Your task to perform on an android device: add a contact in the contacts app Image 0: 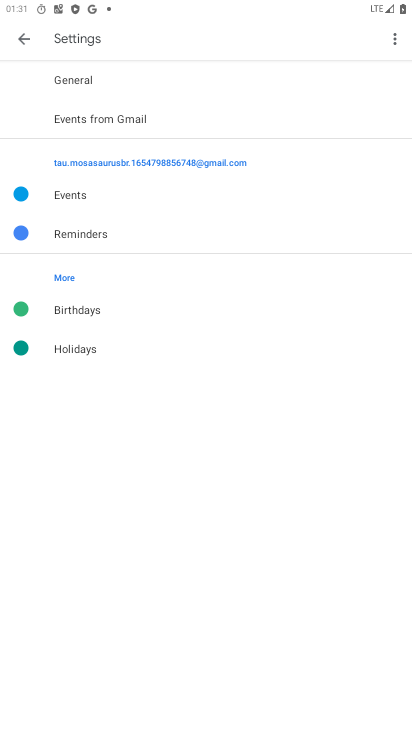
Step 0: press home button
Your task to perform on an android device: add a contact in the contacts app Image 1: 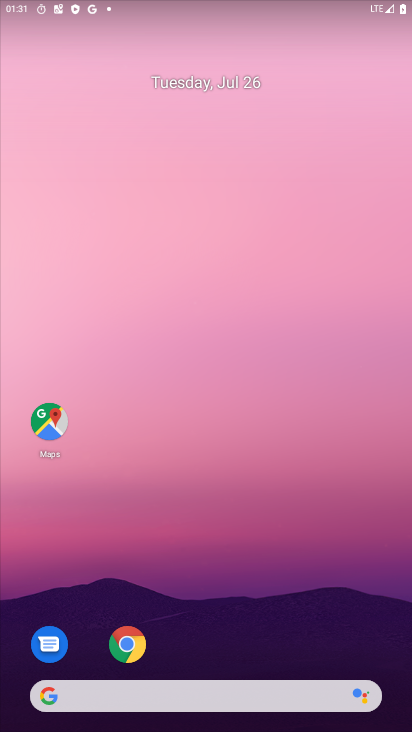
Step 1: drag from (239, 652) to (238, 73)
Your task to perform on an android device: add a contact in the contacts app Image 2: 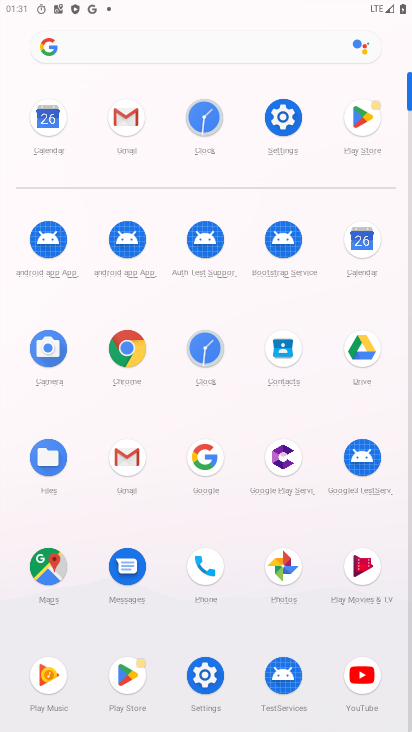
Step 2: click (289, 348)
Your task to perform on an android device: add a contact in the contacts app Image 3: 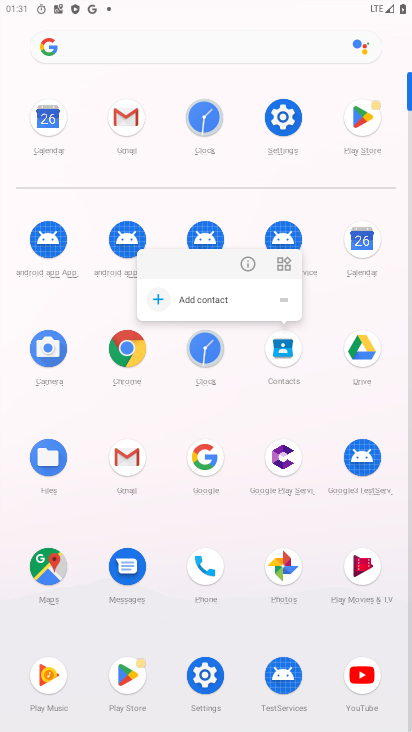
Step 3: click (288, 351)
Your task to perform on an android device: add a contact in the contacts app Image 4: 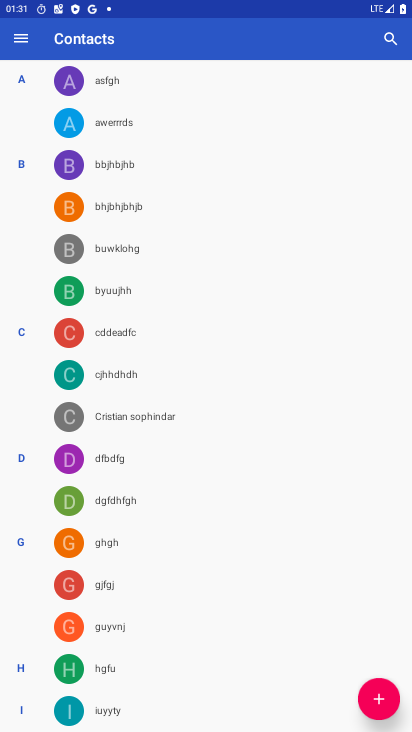
Step 4: click (382, 706)
Your task to perform on an android device: add a contact in the contacts app Image 5: 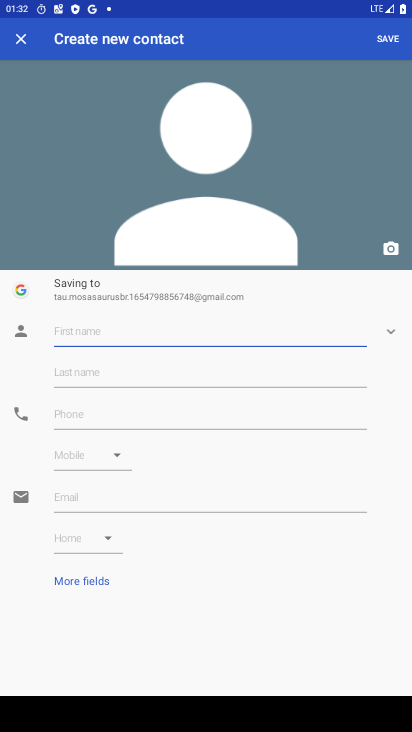
Step 5: click (90, 330)
Your task to perform on an android device: add a contact in the contacts app Image 6: 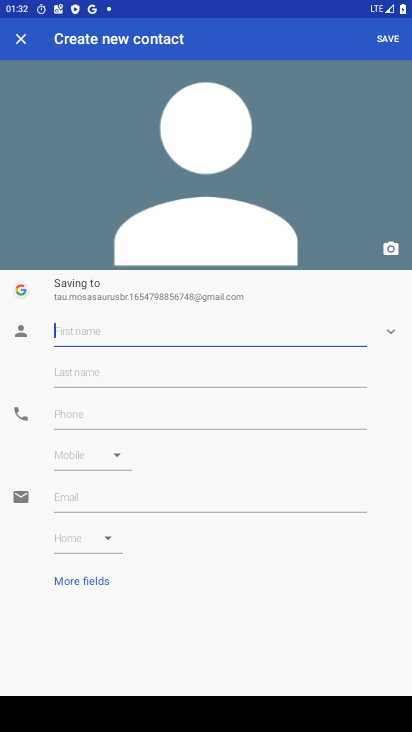
Step 6: type "ytfghut"
Your task to perform on an android device: add a contact in the contacts app Image 7: 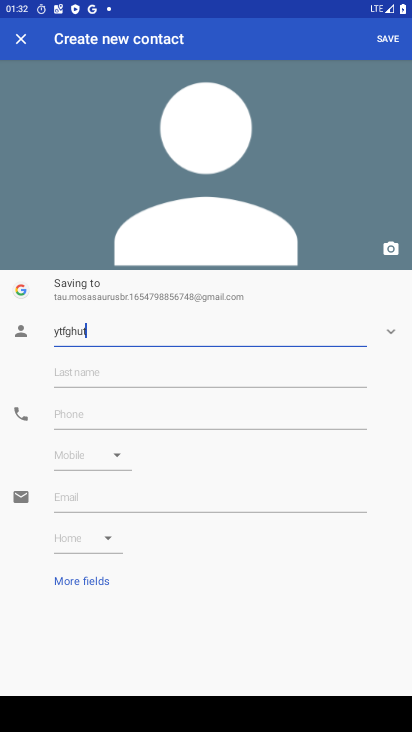
Step 7: click (88, 419)
Your task to perform on an android device: add a contact in the contacts app Image 8: 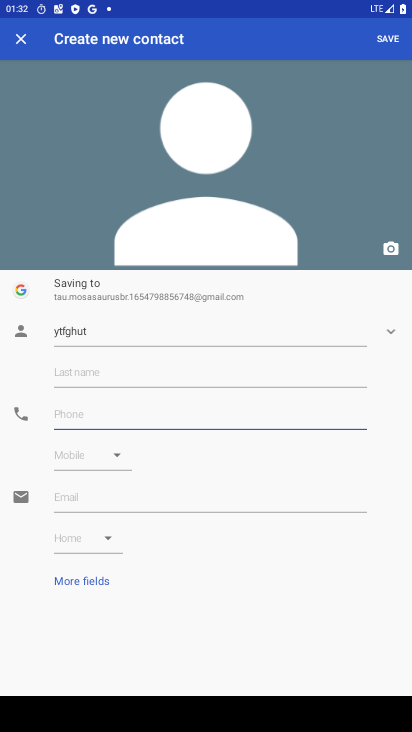
Step 8: type "876544556"
Your task to perform on an android device: add a contact in the contacts app Image 9: 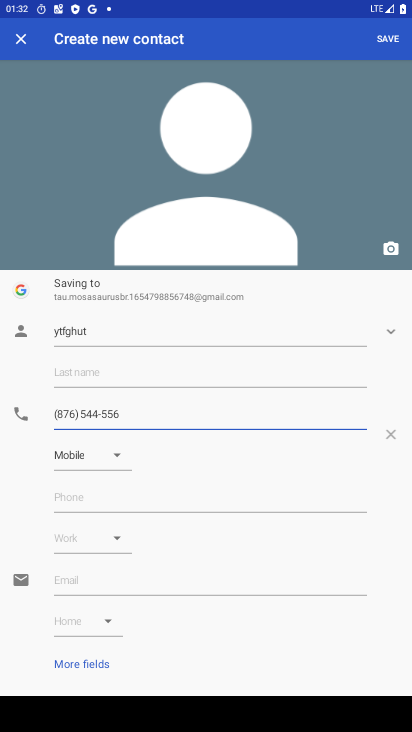
Step 9: click (397, 37)
Your task to perform on an android device: add a contact in the contacts app Image 10: 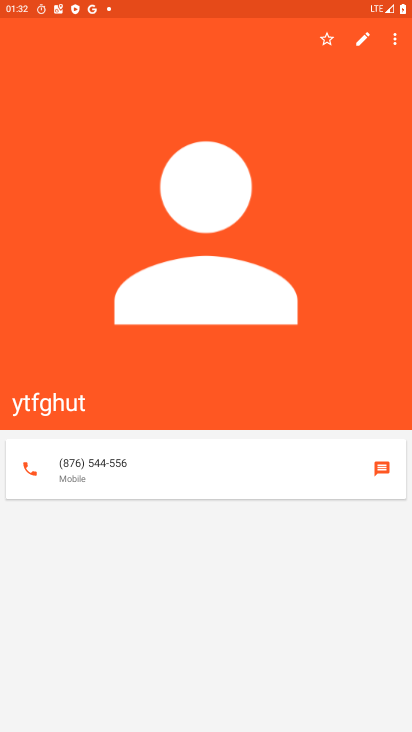
Step 10: task complete